Your task to perform on an android device: uninstall "Facebook Lite" Image 0: 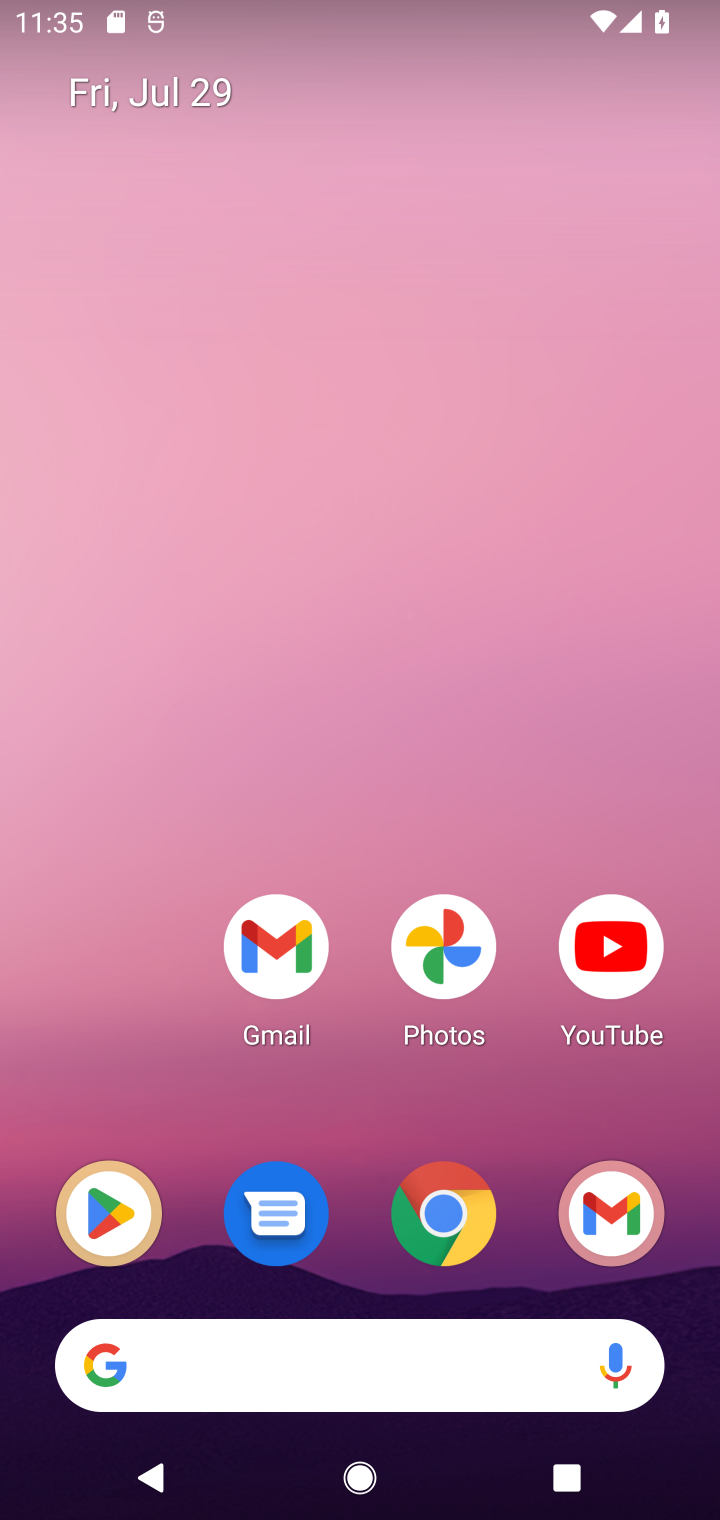
Step 0: drag from (380, 1197) to (417, 273)
Your task to perform on an android device: uninstall "Facebook Lite" Image 1: 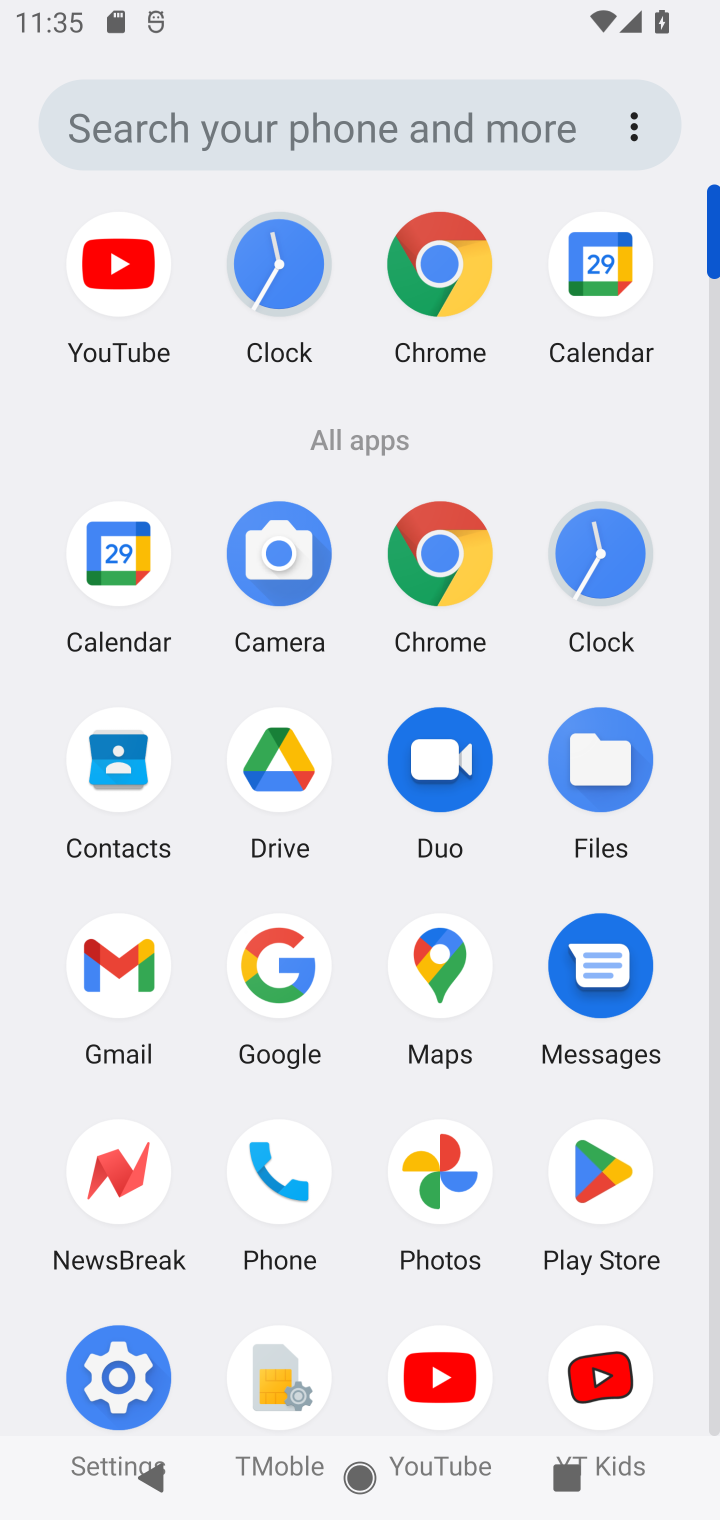
Step 1: click (590, 1172)
Your task to perform on an android device: uninstall "Facebook Lite" Image 2: 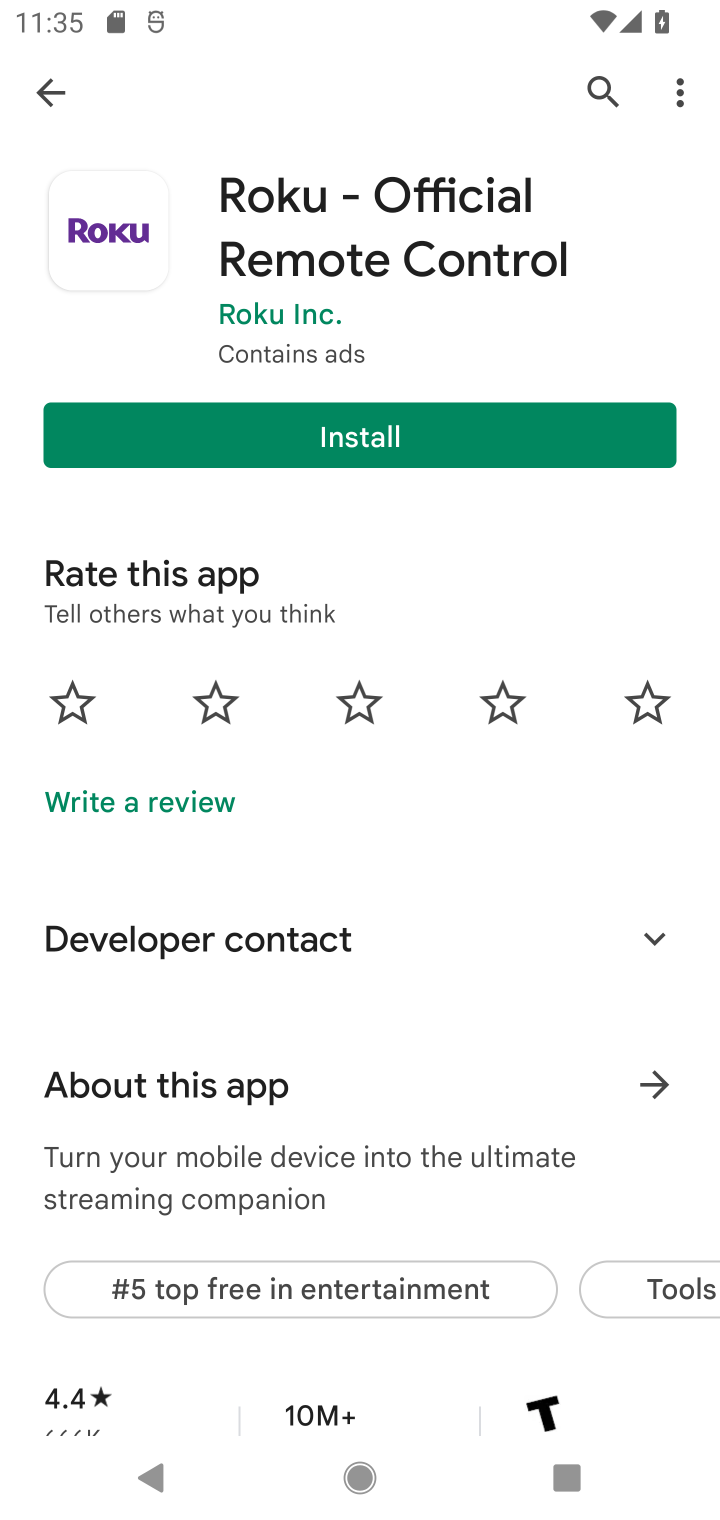
Step 2: click (591, 84)
Your task to perform on an android device: uninstall "Facebook Lite" Image 3: 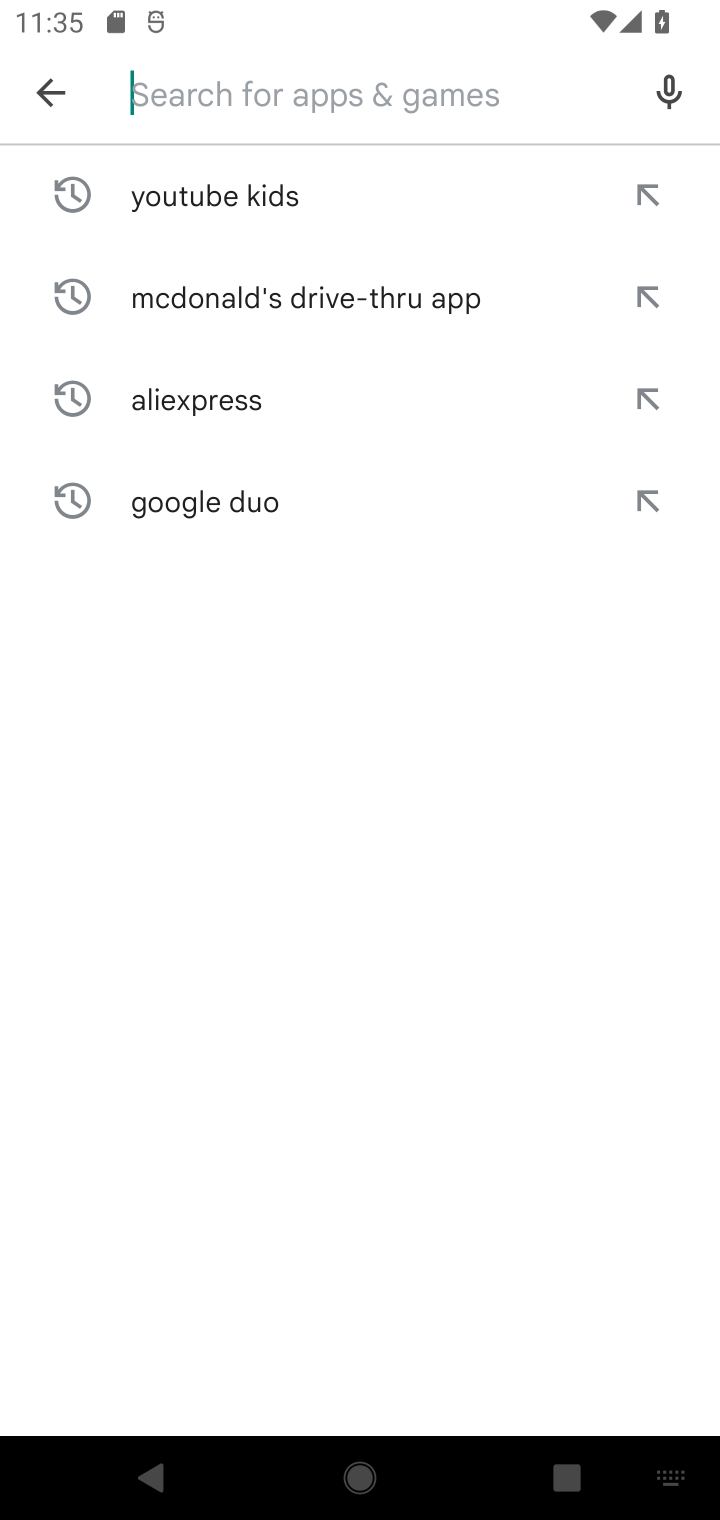
Step 3: type "Facebook Lite"
Your task to perform on an android device: uninstall "Facebook Lite" Image 4: 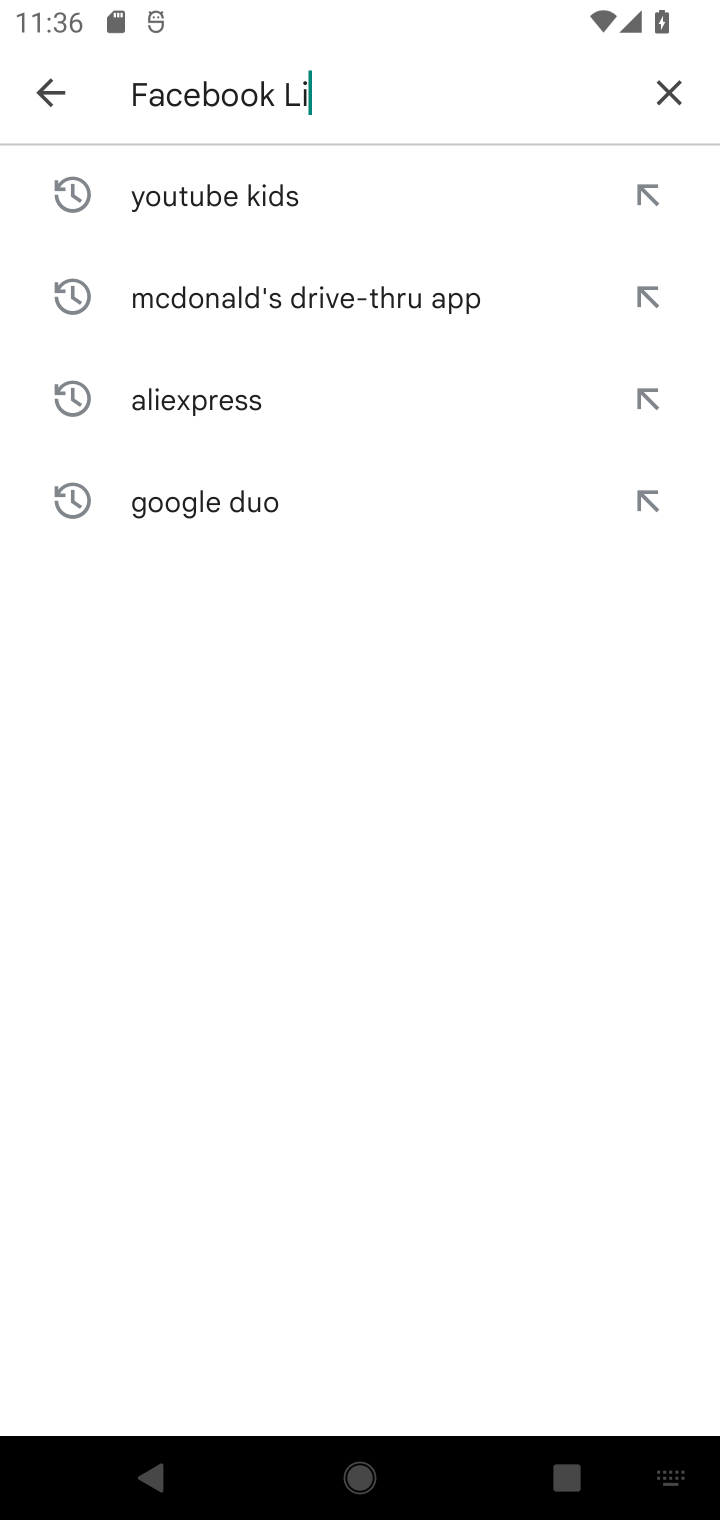
Step 4: type ""
Your task to perform on an android device: uninstall "Facebook Lite" Image 5: 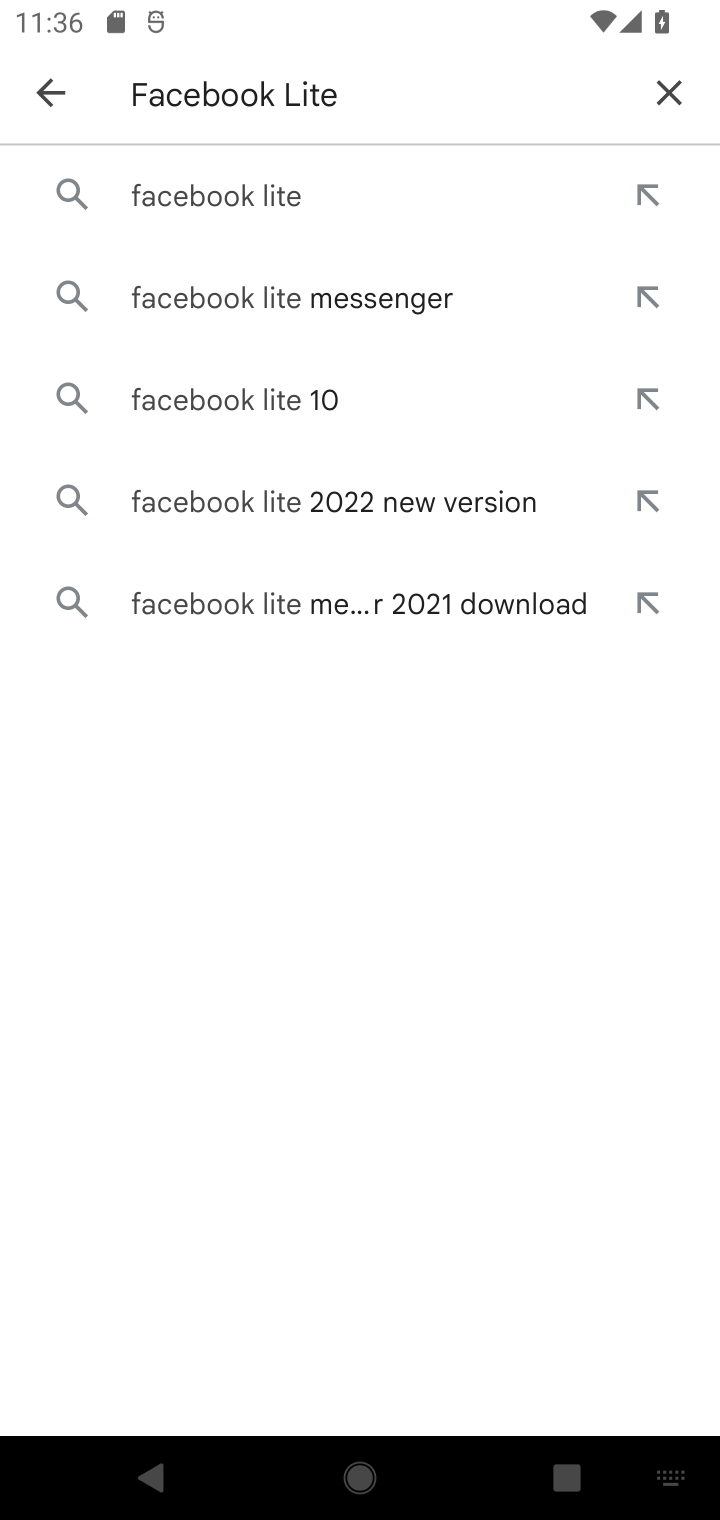
Step 5: click (247, 177)
Your task to perform on an android device: uninstall "Facebook Lite" Image 6: 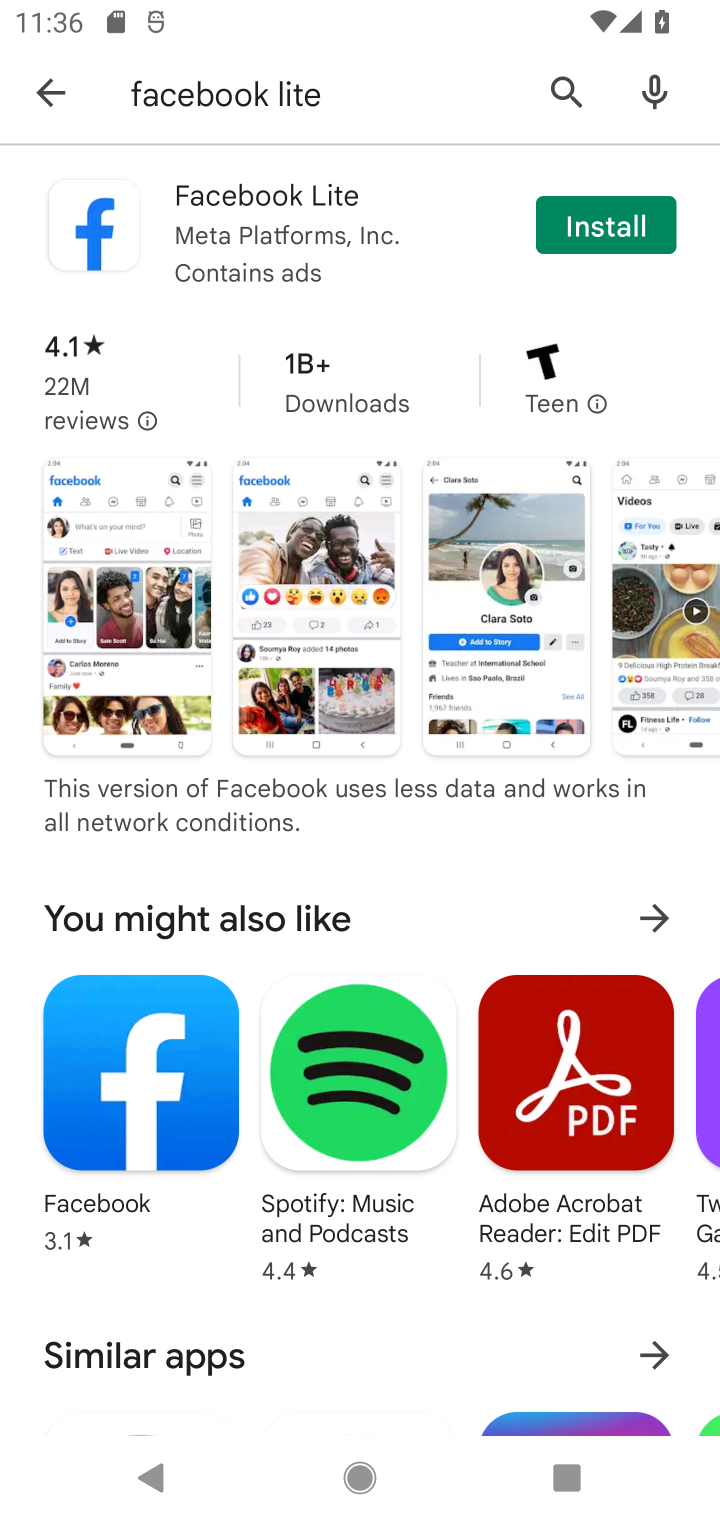
Step 6: click (314, 251)
Your task to perform on an android device: uninstall "Facebook Lite" Image 7: 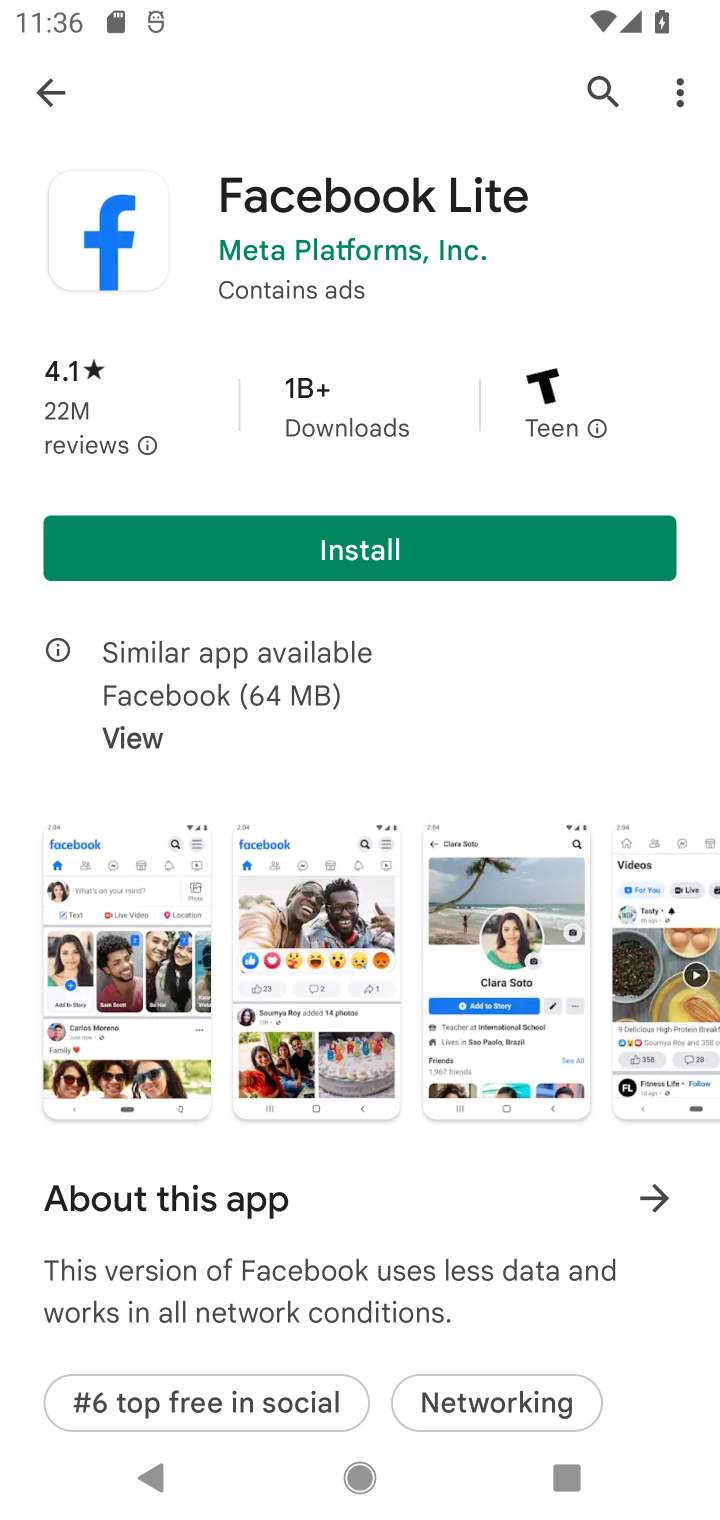
Step 7: task complete